Your task to perform on an android device: Open Google Chrome and open the bookmarks view Image 0: 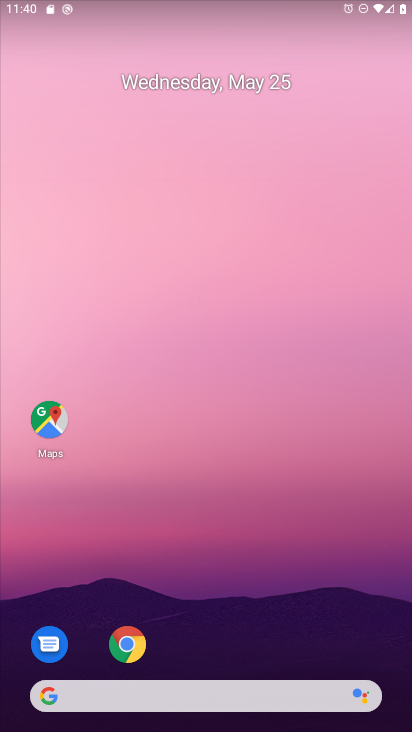
Step 0: click (125, 638)
Your task to perform on an android device: Open Google Chrome and open the bookmarks view Image 1: 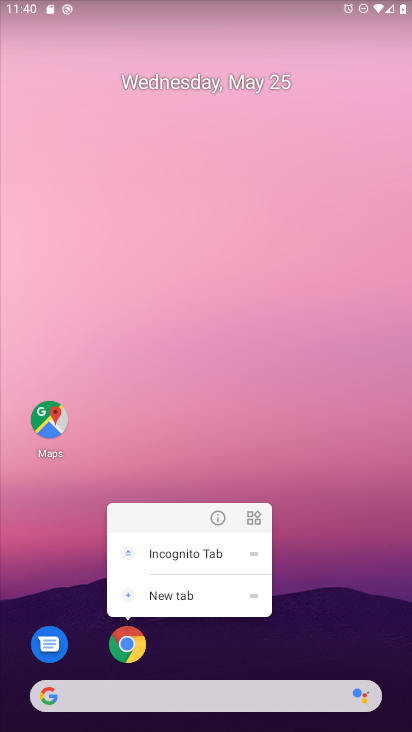
Step 1: click (125, 638)
Your task to perform on an android device: Open Google Chrome and open the bookmarks view Image 2: 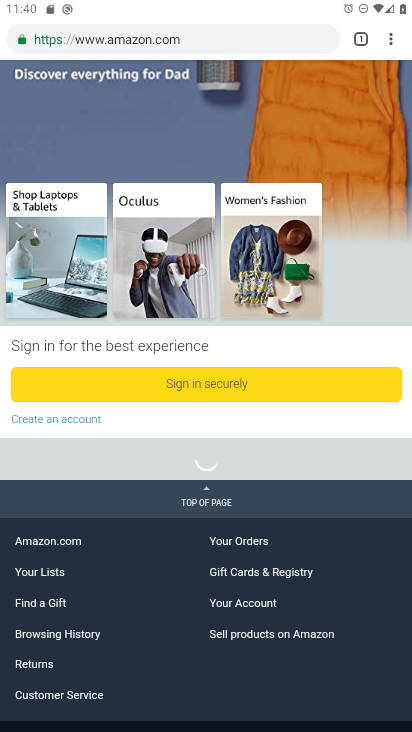
Step 2: click (391, 37)
Your task to perform on an android device: Open Google Chrome and open the bookmarks view Image 3: 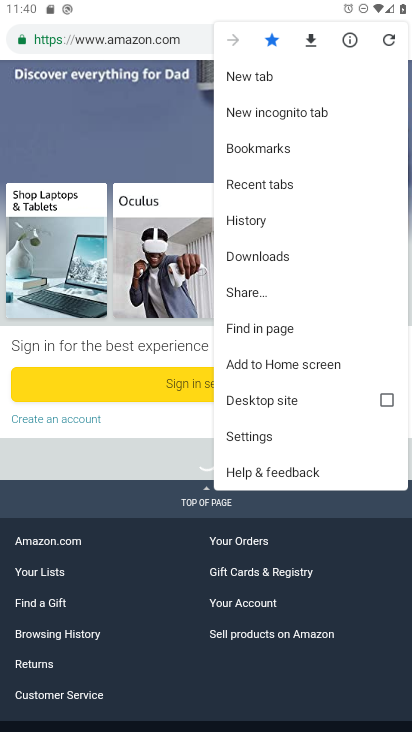
Step 3: click (300, 143)
Your task to perform on an android device: Open Google Chrome and open the bookmarks view Image 4: 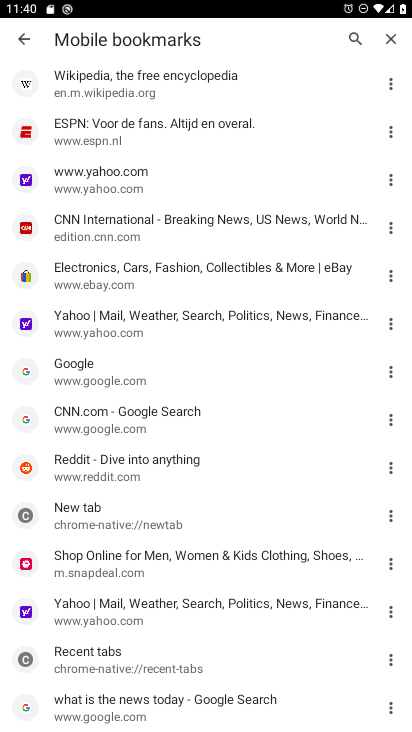
Step 4: task complete